Your task to perform on an android device: open app "LinkedIn" (install if not already installed), go to login, and select forgot password Image 0: 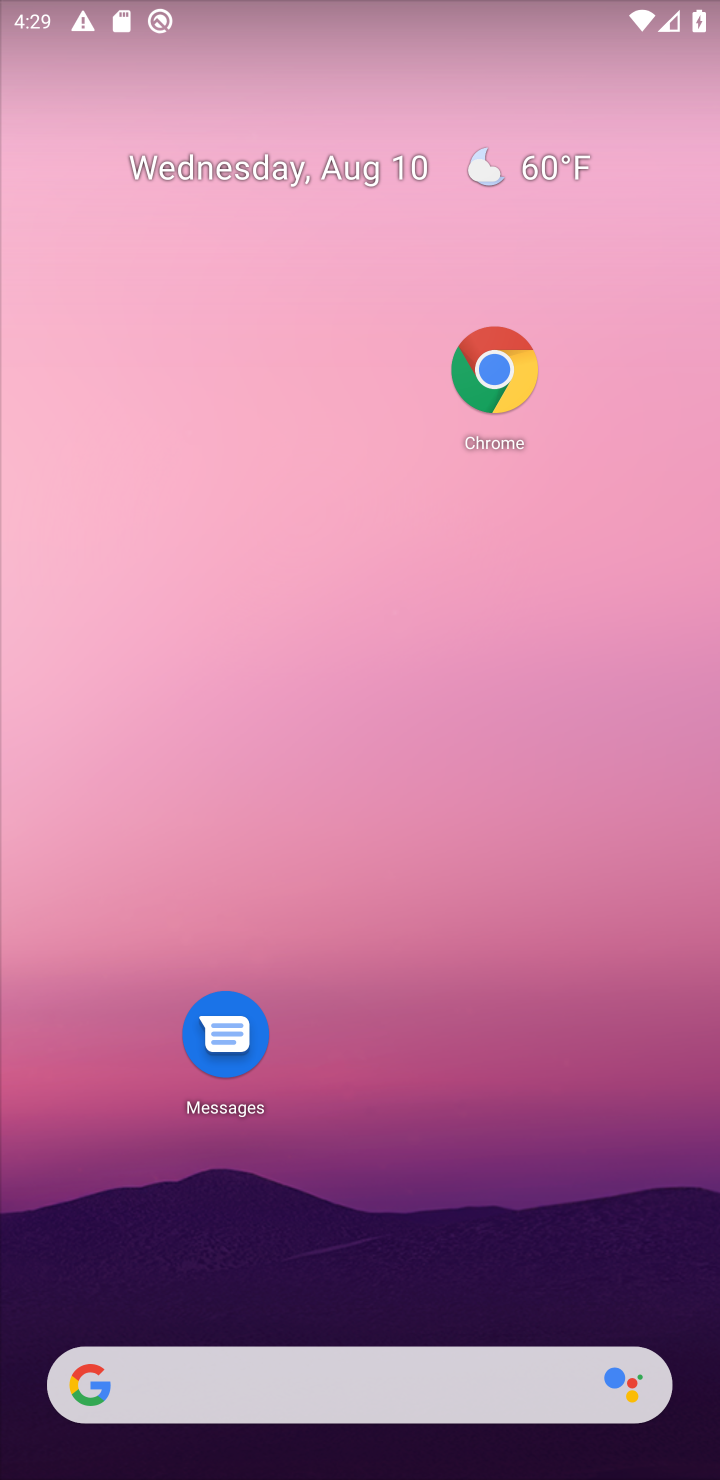
Step 0: drag from (386, 1234) to (410, 511)
Your task to perform on an android device: open app "LinkedIn" (install if not already installed), go to login, and select forgot password Image 1: 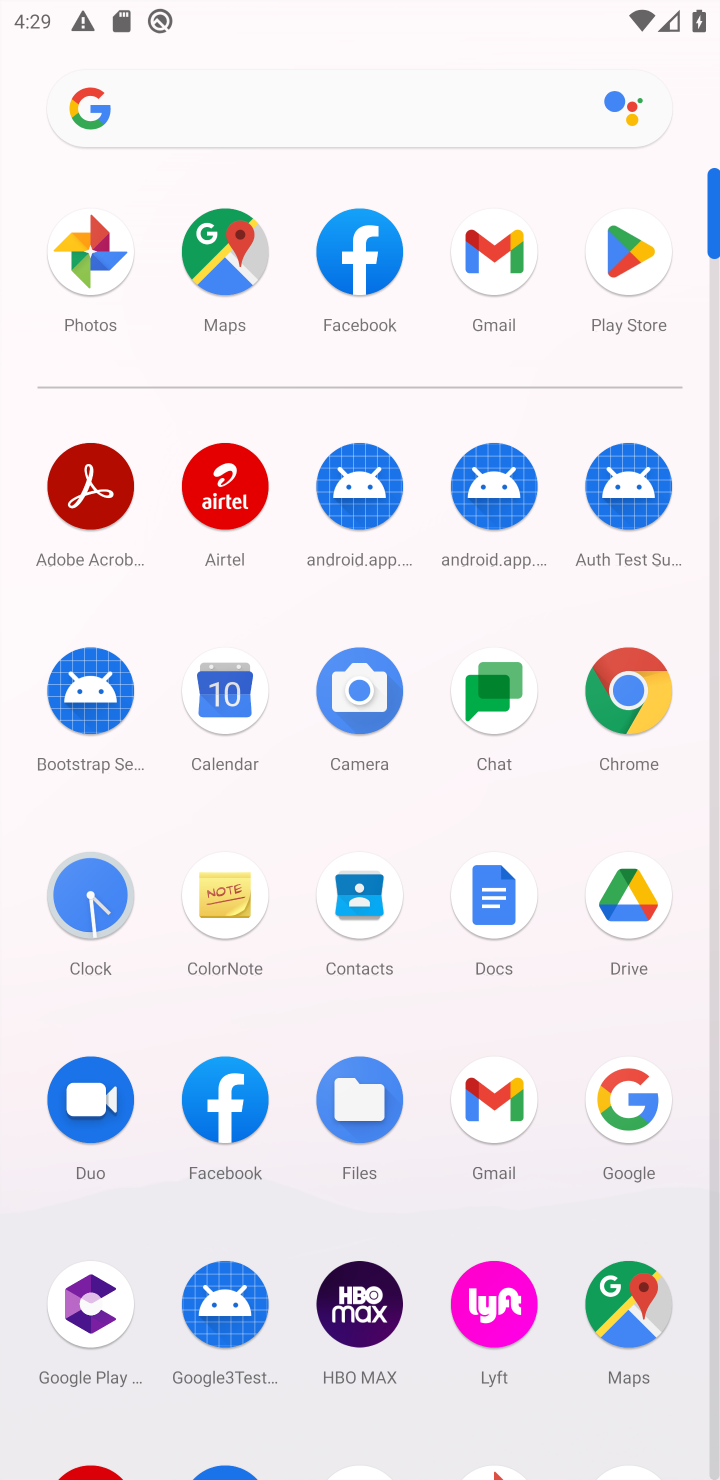
Step 1: click (642, 238)
Your task to perform on an android device: open app "LinkedIn" (install if not already installed), go to login, and select forgot password Image 2: 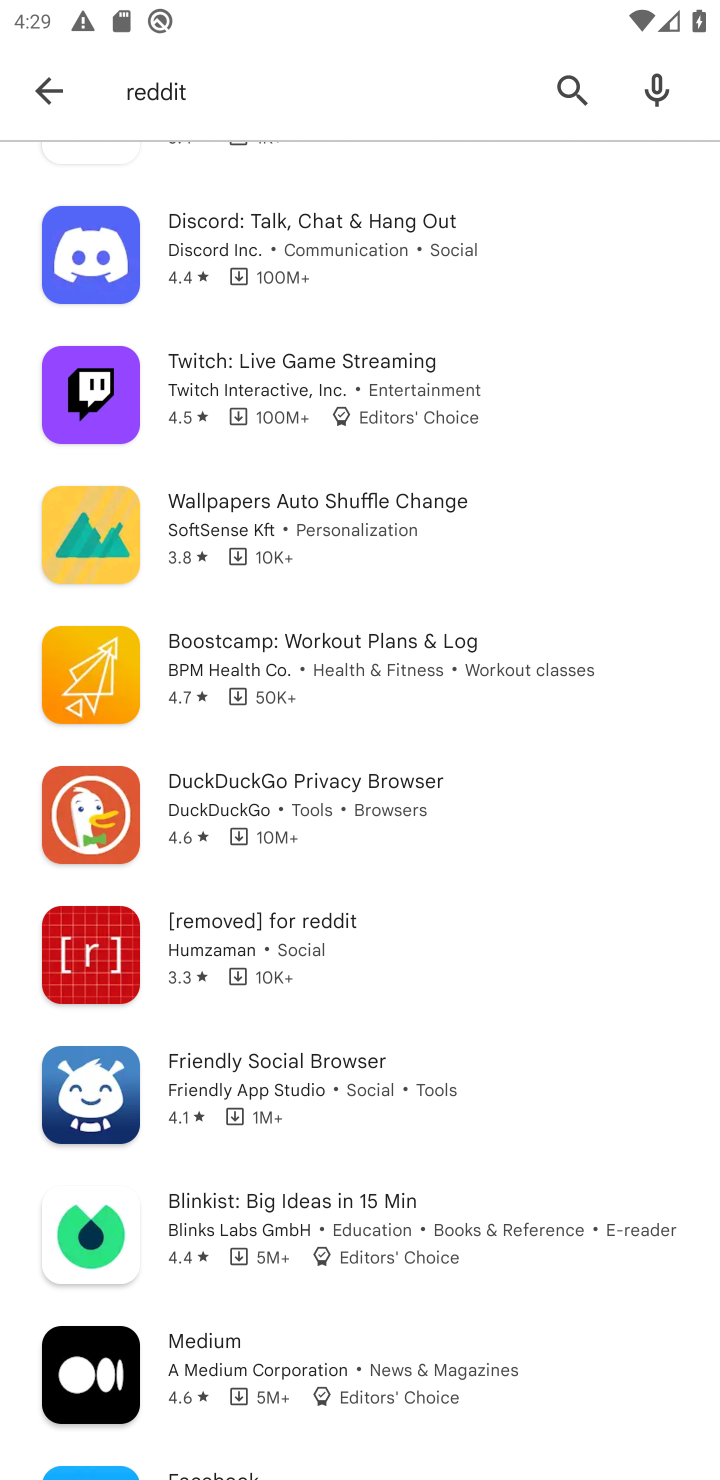
Step 2: click (58, 72)
Your task to perform on an android device: open app "LinkedIn" (install if not already installed), go to login, and select forgot password Image 3: 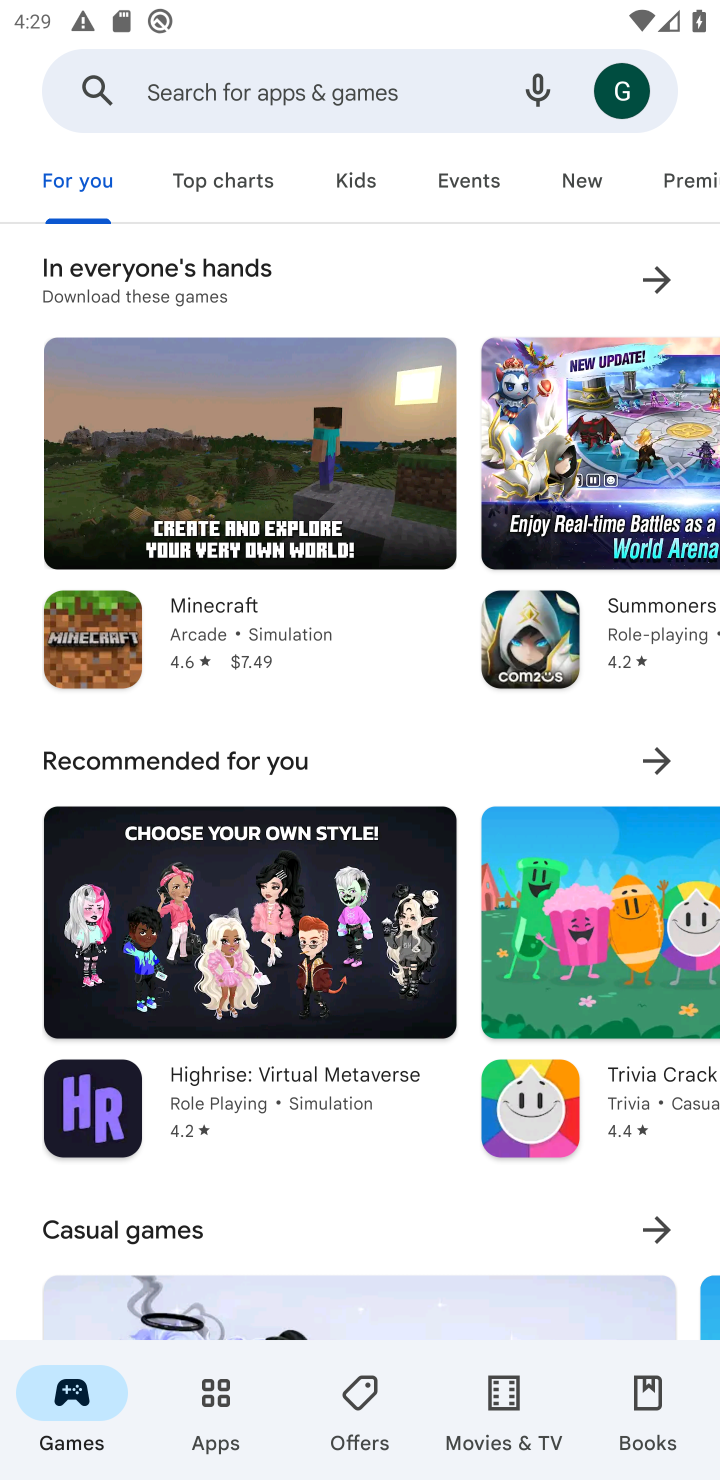
Step 3: click (294, 88)
Your task to perform on an android device: open app "LinkedIn" (install if not already installed), go to login, and select forgot password Image 4: 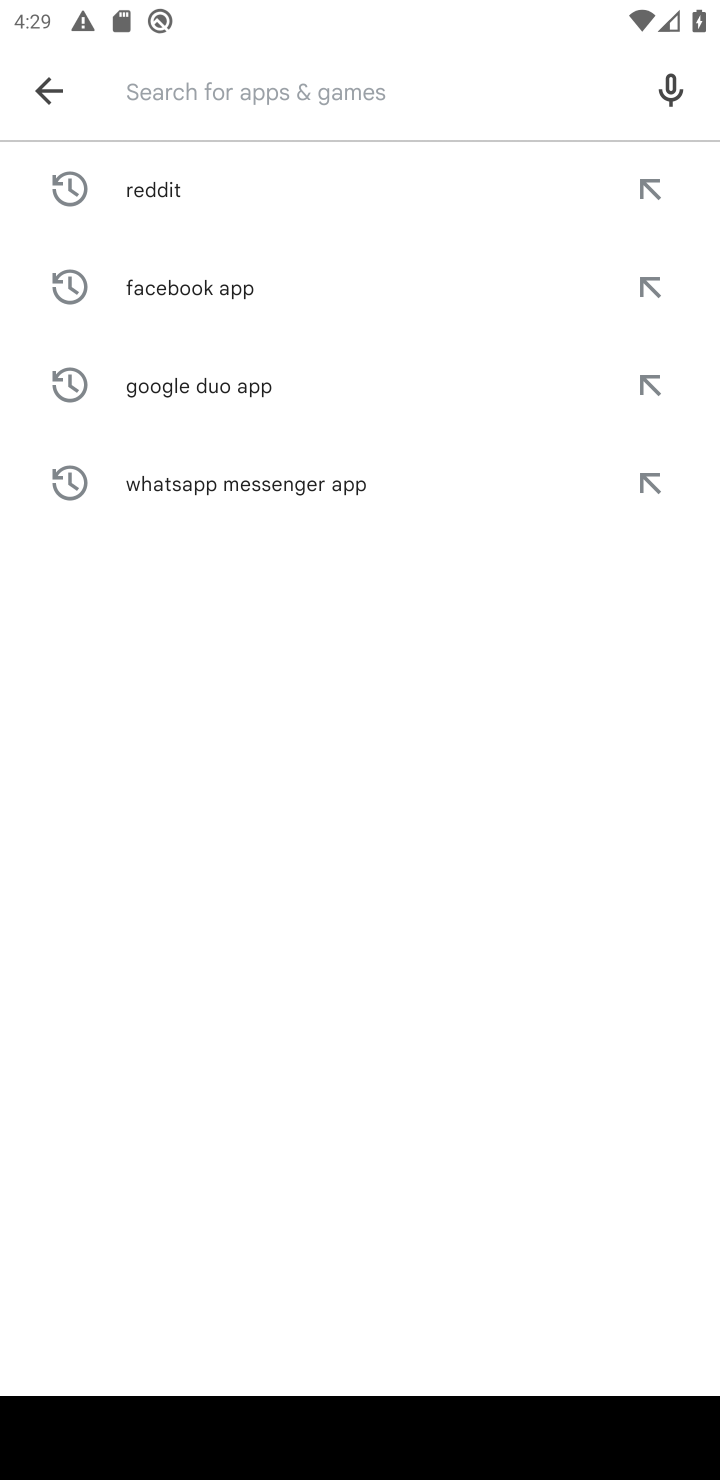
Step 4: type "linkdin "
Your task to perform on an android device: open app "LinkedIn" (install if not already installed), go to login, and select forgot password Image 5: 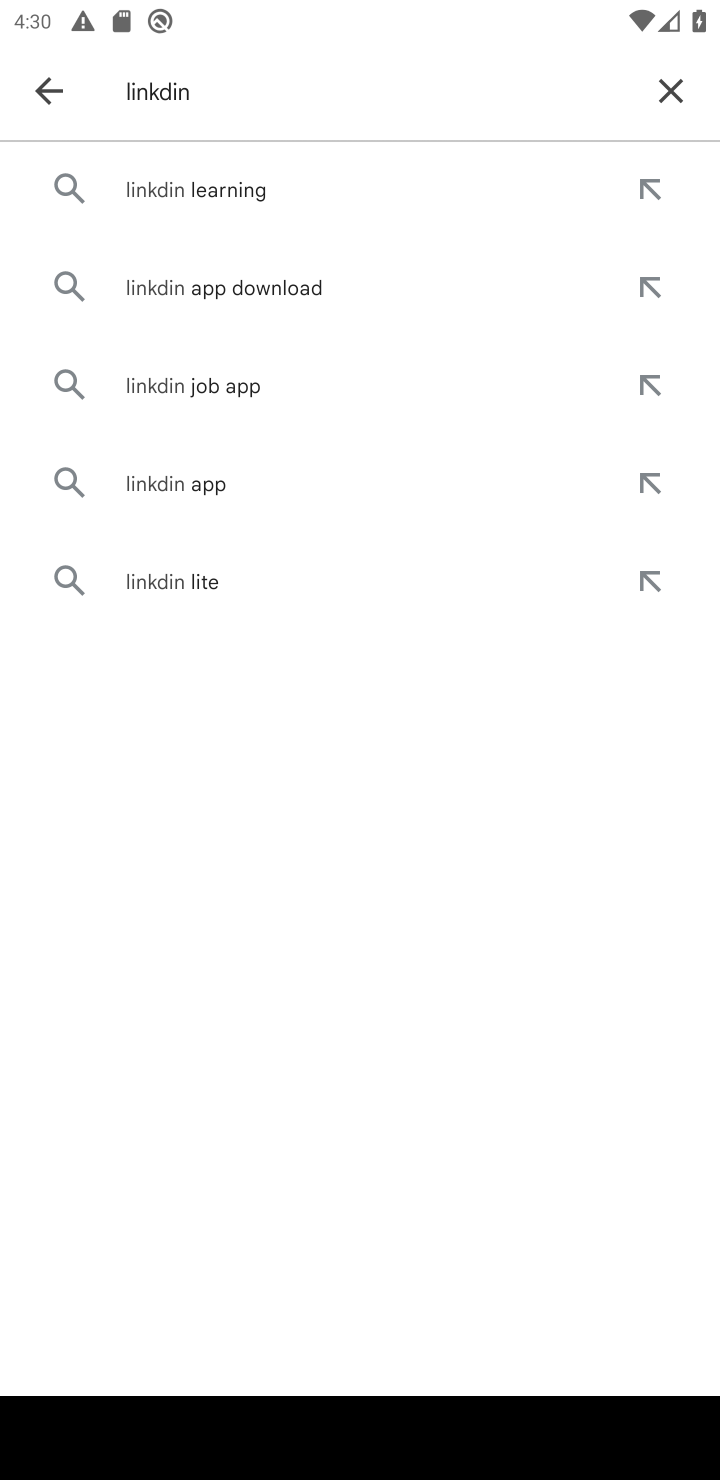
Step 5: click (253, 474)
Your task to perform on an android device: open app "LinkedIn" (install if not already installed), go to login, and select forgot password Image 6: 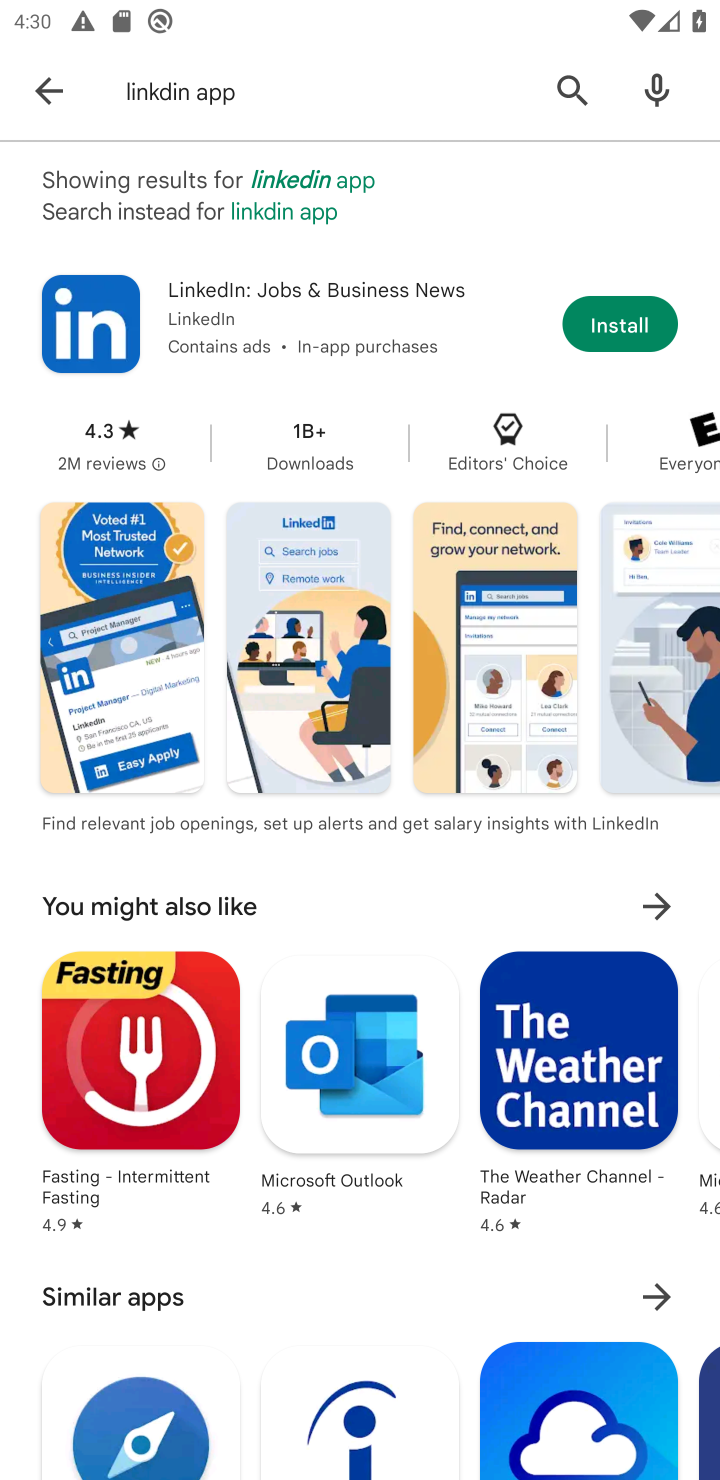
Step 6: click (612, 328)
Your task to perform on an android device: open app "LinkedIn" (install if not already installed), go to login, and select forgot password Image 7: 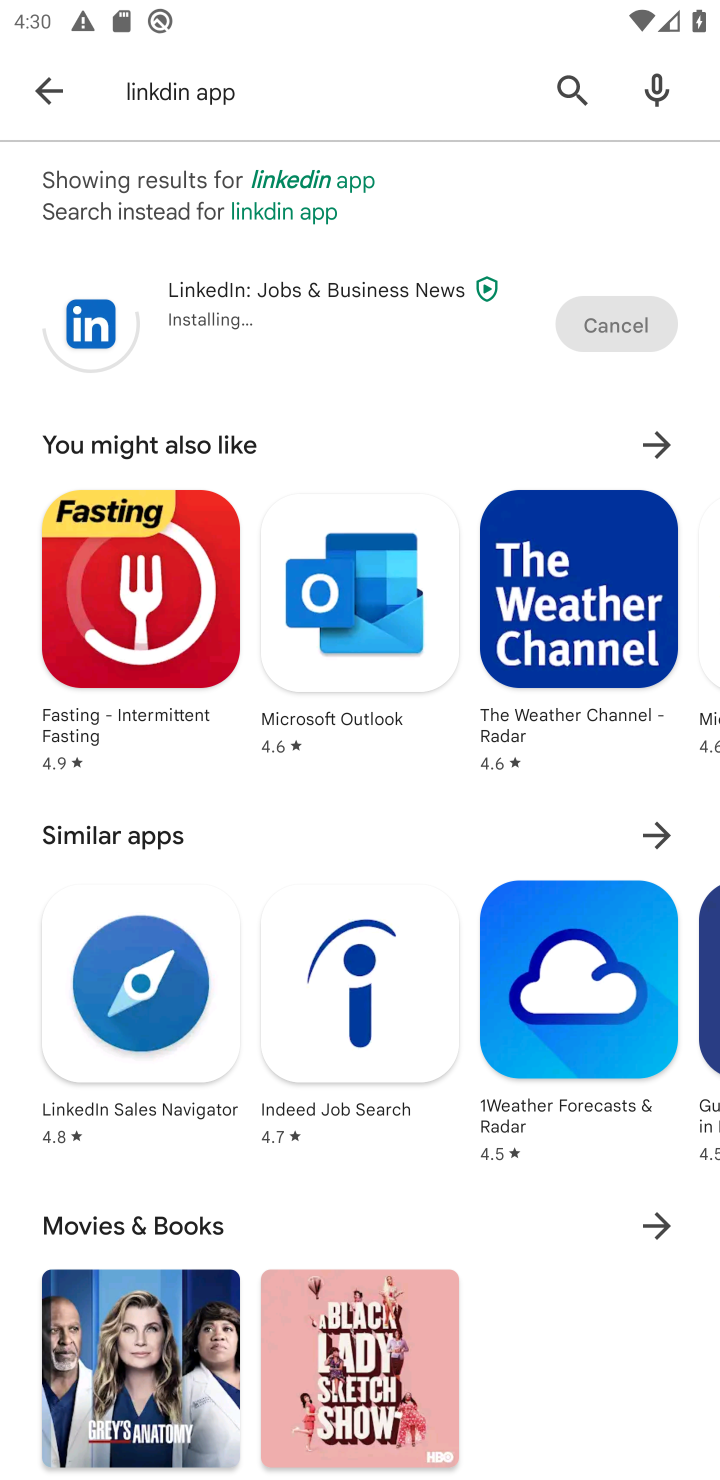
Step 7: task complete